Your task to perform on an android device: change timer sound Image 0: 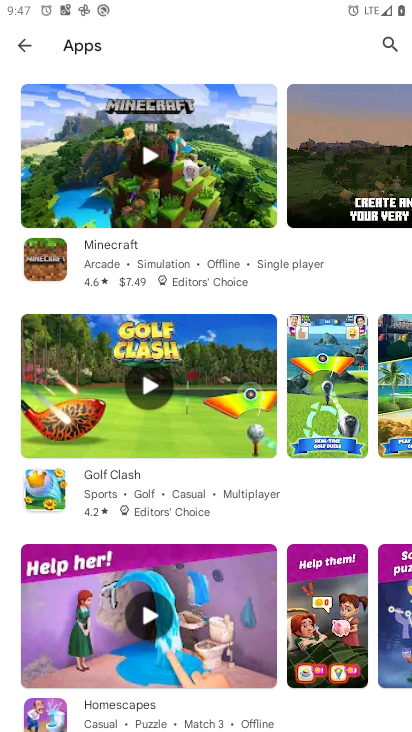
Step 0: press home button
Your task to perform on an android device: change timer sound Image 1: 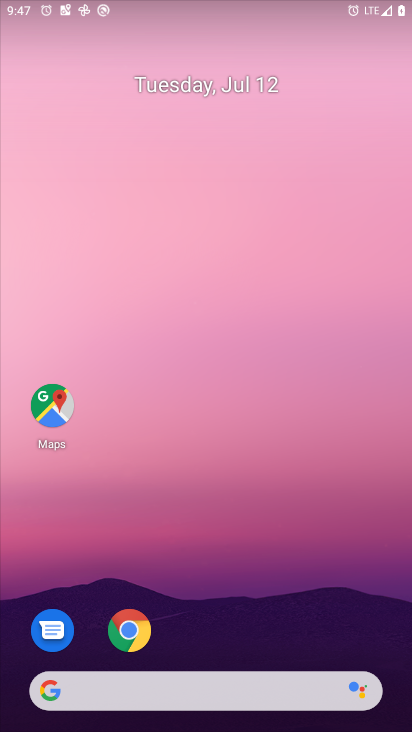
Step 1: drag from (235, 639) to (209, 190)
Your task to perform on an android device: change timer sound Image 2: 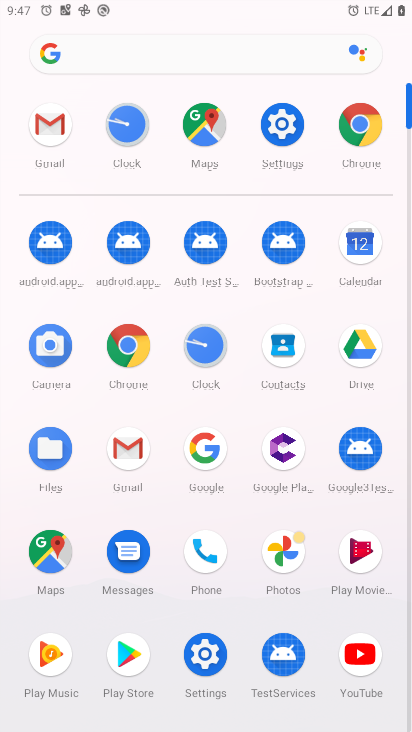
Step 2: click (212, 354)
Your task to perform on an android device: change timer sound Image 3: 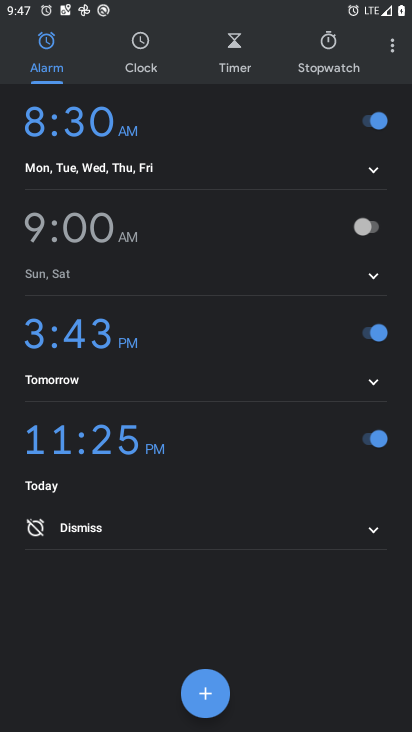
Step 3: click (392, 51)
Your task to perform on an android device: change timer sound Image 4: 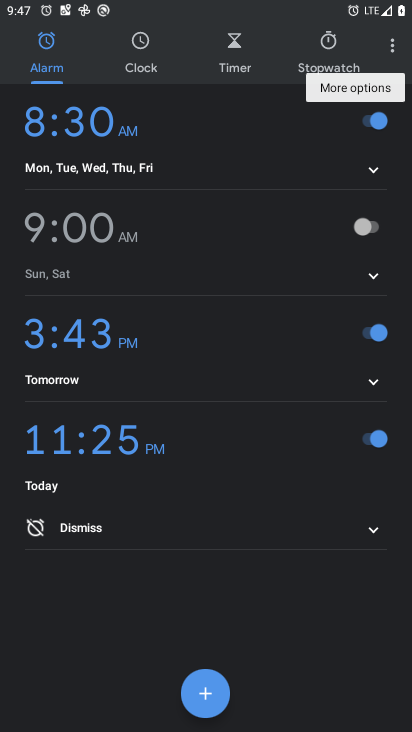
Step 4: click (392, 51)
Your task to perform on an android device: change timer sound Image 5: 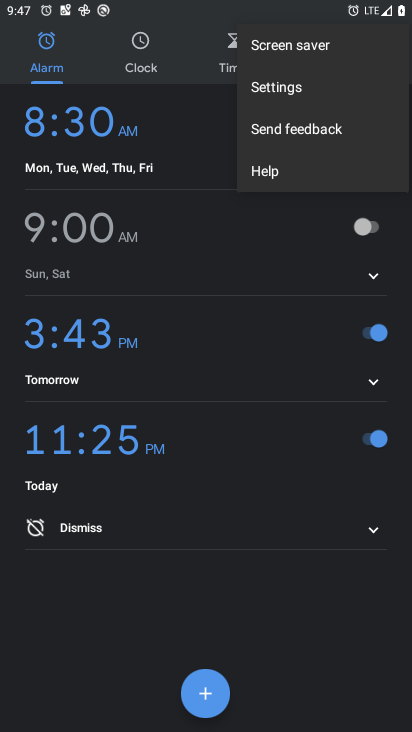
Step 5: click (277, 90)
Your task to perform on an android device: change timer sound Image 6: 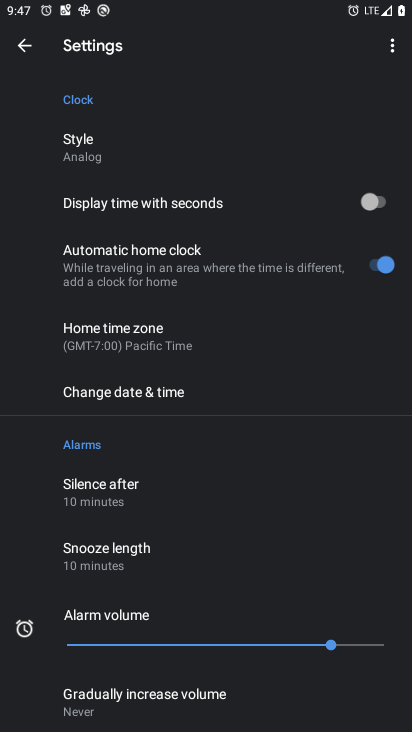
Step 6: drag from (268, 622) to (268, 362)
Your task to perform on an android device: change timer sound Image 7: 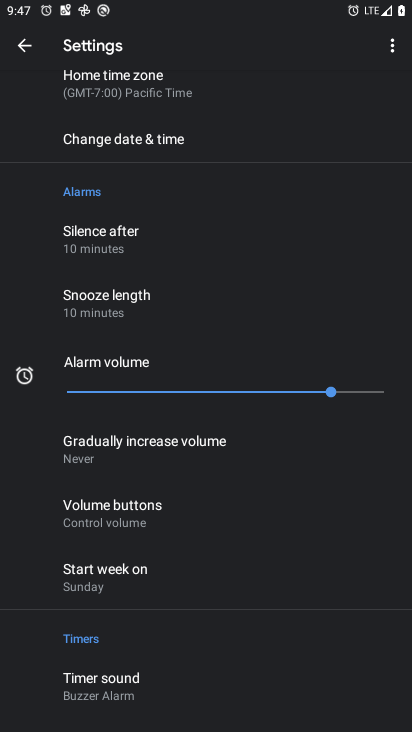
Step 7: click (123, 697)
Your task to perform on an android device: change timer sound Image 8: 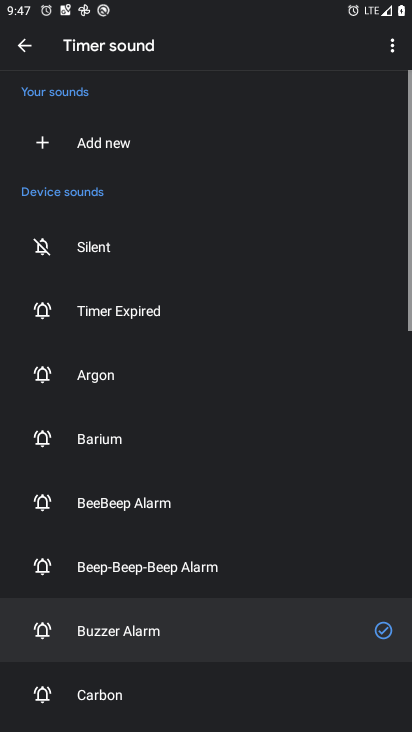
Step 8: click (128, 690)
Your task to perform on an android device: change timer sound Image 9: 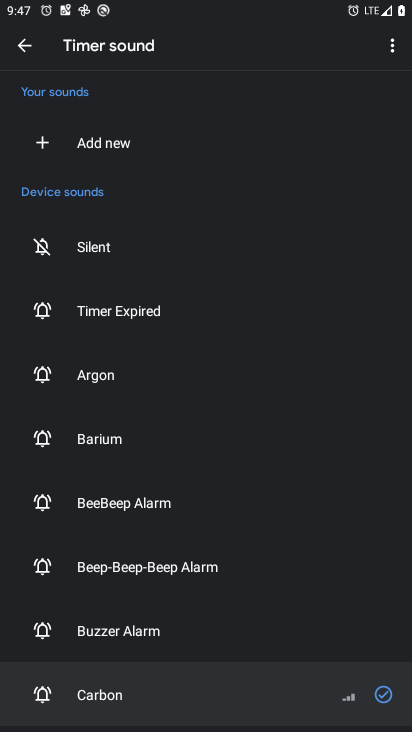
Step 9: task complete